Your task to perform on an android device: turn off smart reply in the gmail app Image 0: 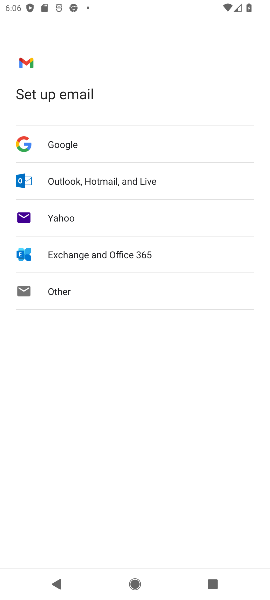
Step 0: press back button
Your task to perform on an android device: turn off smart reply in the gmail app Image 1: 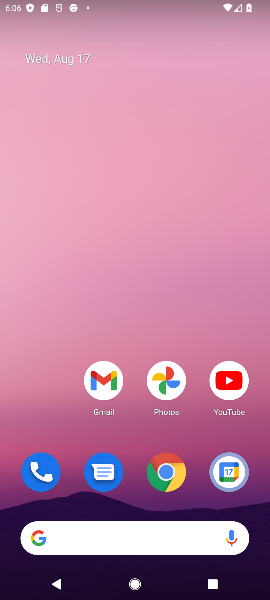
Step 1: click (104, 390)
Your task to perform on an android device: turn off smart reply in the gmail app Image 2: 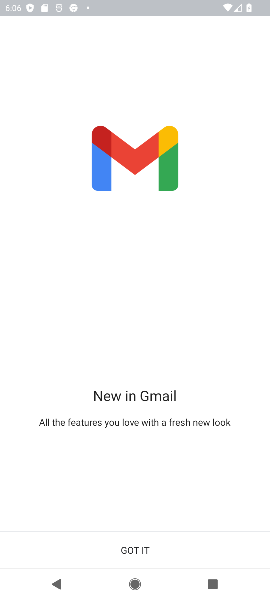
Step 2: click (140, 546)
Your task to perform on an android device: turn off smart reply in the gmail app Image 3: 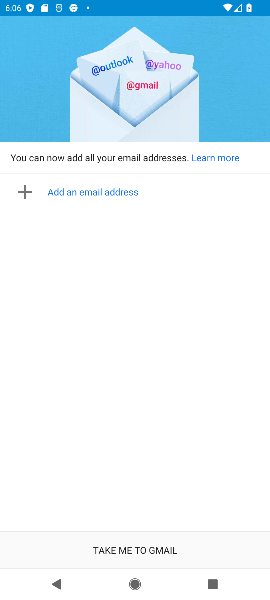
Step 3: click (127, 543)
Your task to perform on an android device: turn off smart reply in the gmail app Image 4: 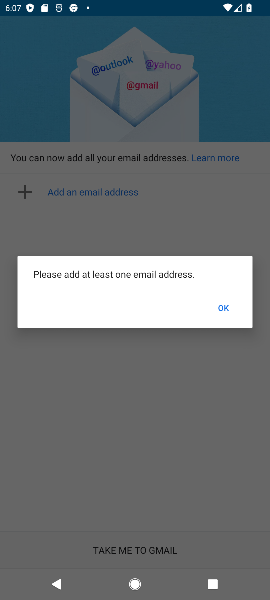
Step 4: click (222, 314)
Your task to perform on an android device: turn off smart reply in the gmail app Image 5: 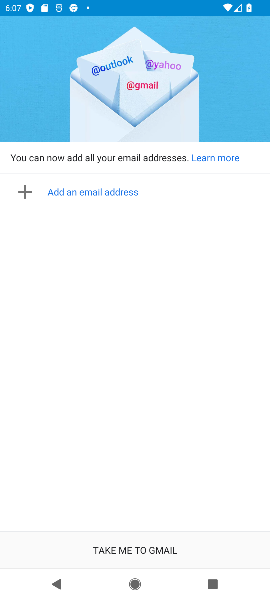
Step 5: task complete